Your task to perform on an android device: check android version Image 0: 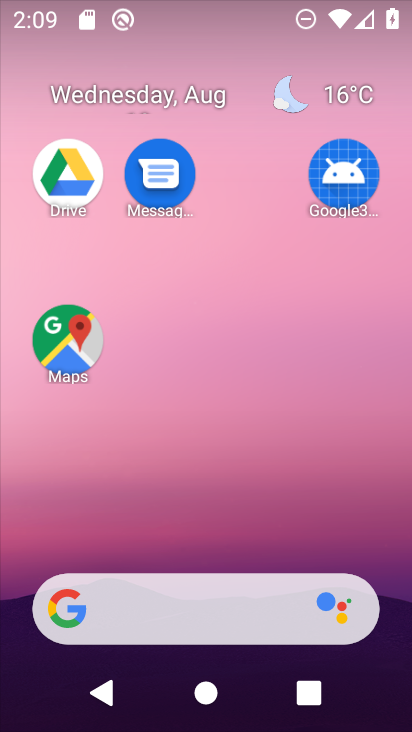
Step 0: drag from (231, 320) to (226, 31)
Your task to perform on an android device: check android version Image 1: 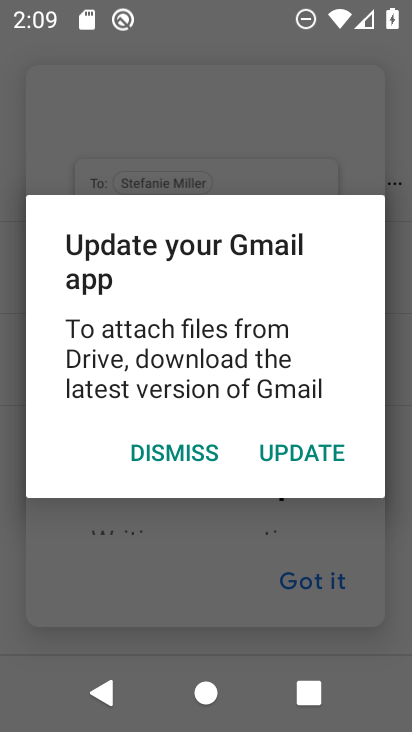
Step 1: click (363, 200)
Your task to perform on an android device: check android version Image 2: 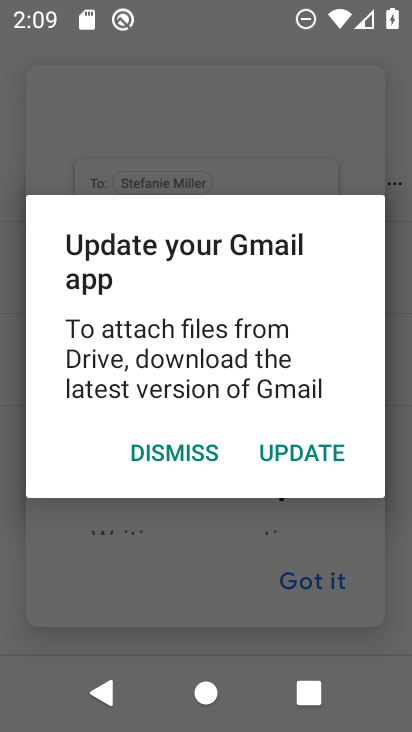
Step 2: press back button
Your task to perform on an android device: check android version Image 3: 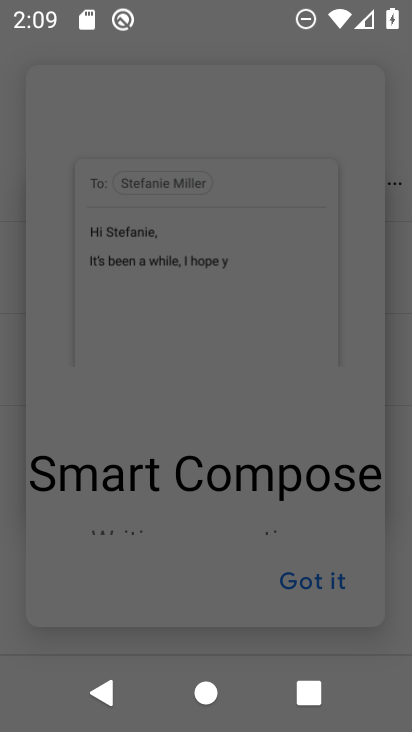
Step 3: press back button
Your task to perform on an android device: check android version Image 4: 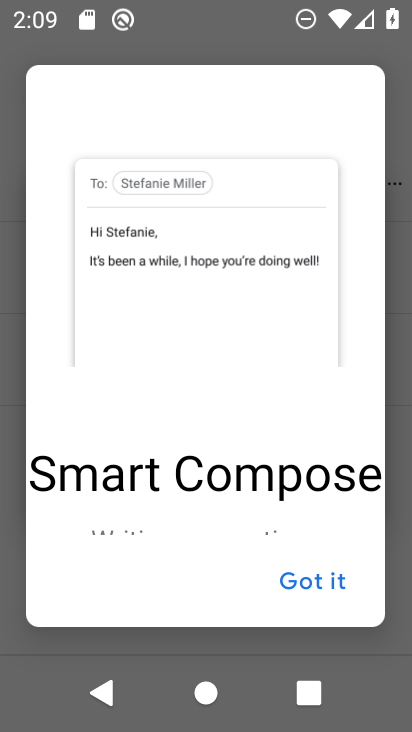
Step 4: press back button
Your task to perform on an android device: check android version Image 5: 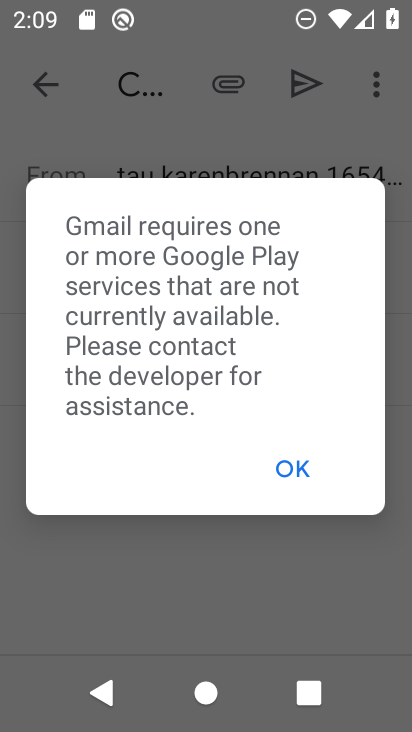
Step 5: press back button
Your task to perform on an android device: check android version Image 6: 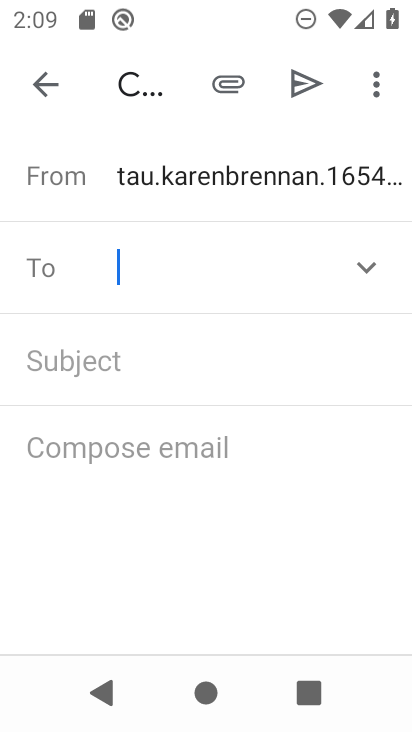
Step 6: press back button
Your task to perform on an android device: check android version Image 7: 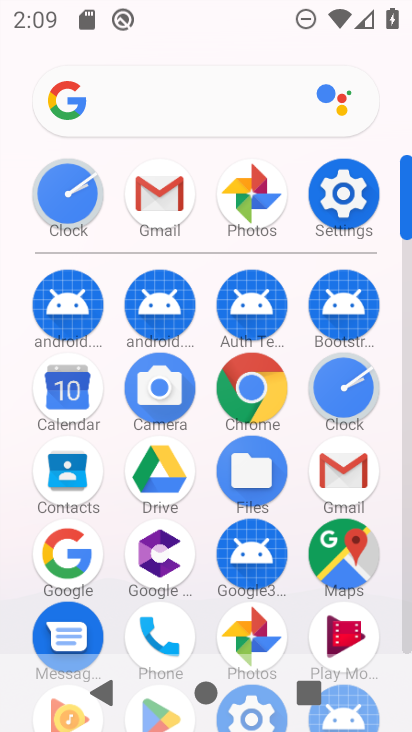
Step 7: click (330, 191)
Your task to perform on an android device: check android version Image 8: 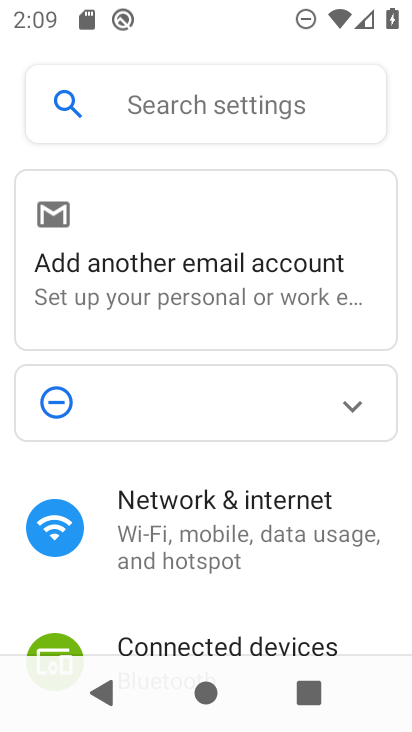
Step 8: drag from (154, 583) to (188, 186)
Your task to perform on an android device: check android version Image 9: 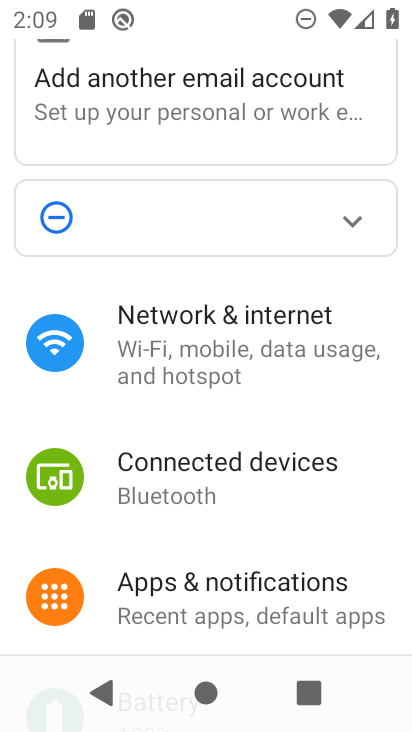
Step 9: drag from (141, 553) to (237, 52)
Your task to perform on an android device: check android version Image 10: 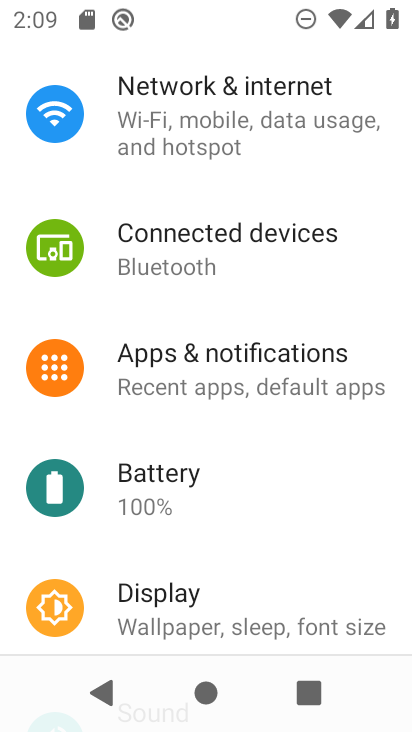
Step 10: drag from (158, 555) to (195, 91)
Your task to perform on an android device: check android version Image 11: 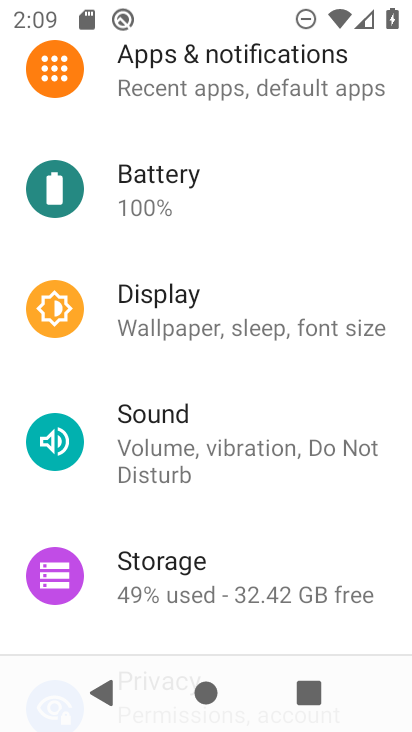
Step 11: drag from (122, 605) to (176, 194)
Your task to perform on an android device: check android version Image 12: 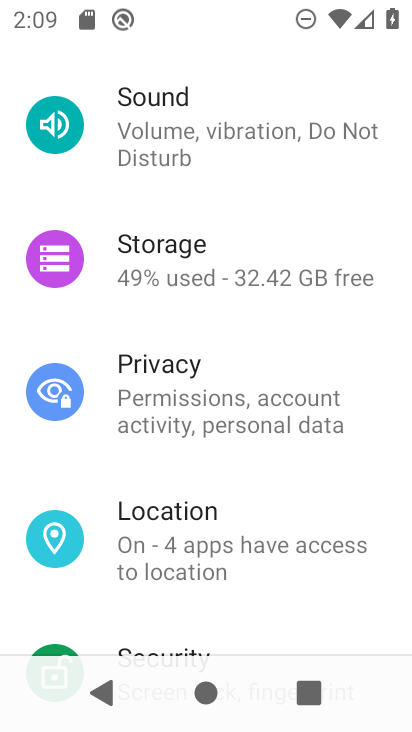
Step 12: drag from (200, 612) to (271, 117)
Your task to perform on an android device: check android version Image 13: 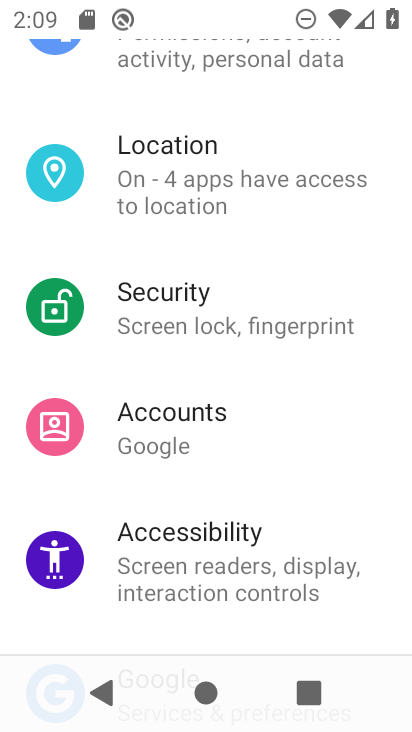
Step 13: drag from (160, 510) to (193, 106)
Your task to perform on an android device: check android version Image 14: 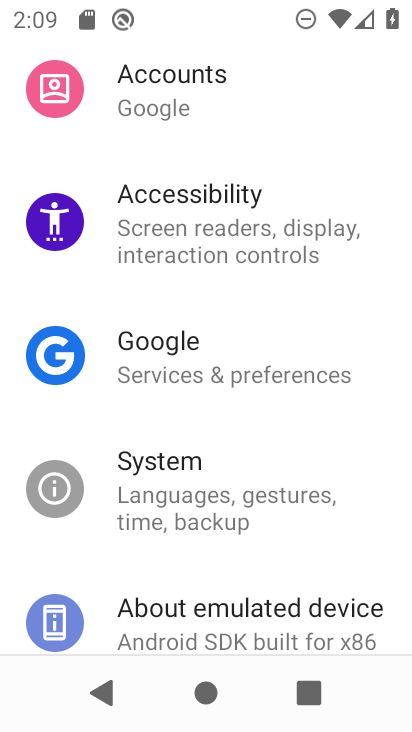
Step 14: drag from (120, 570) to (212, 86)
Your task to perform on an android device: check android version Image 15: 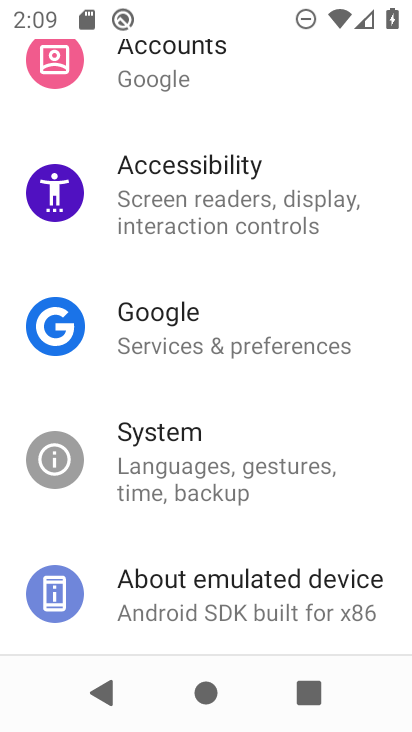
Step 15: click (202, 473)
Your task to perform on an android device: check android version Image 16: 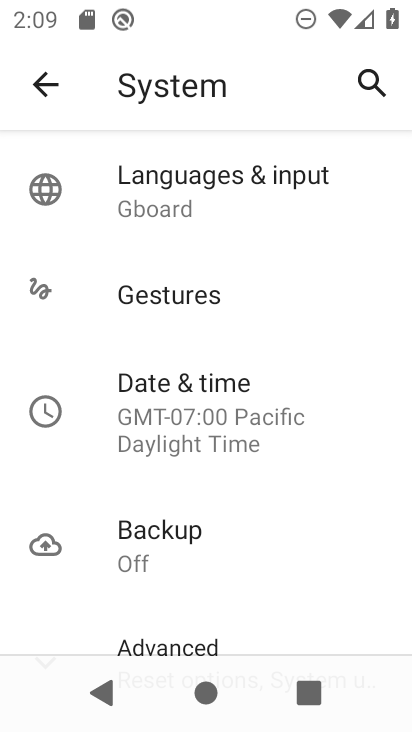
Step 16: click (60, 90)
Your task to perform on an android device: check android version Image 17: 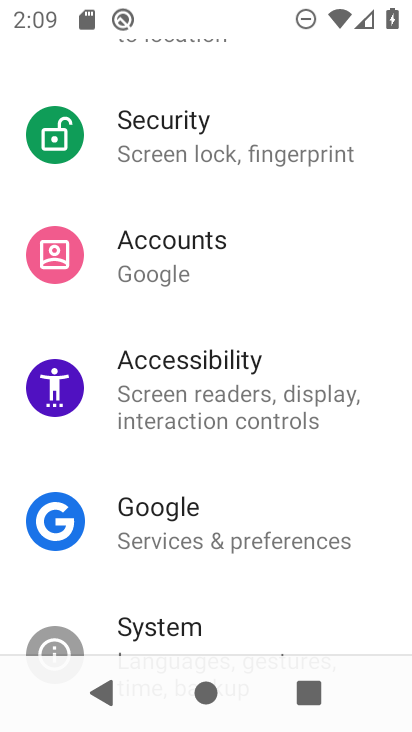
Step 17: drag from (188, 620) to (211, 208)
Your task to perform on an android device: check android version Image 18: 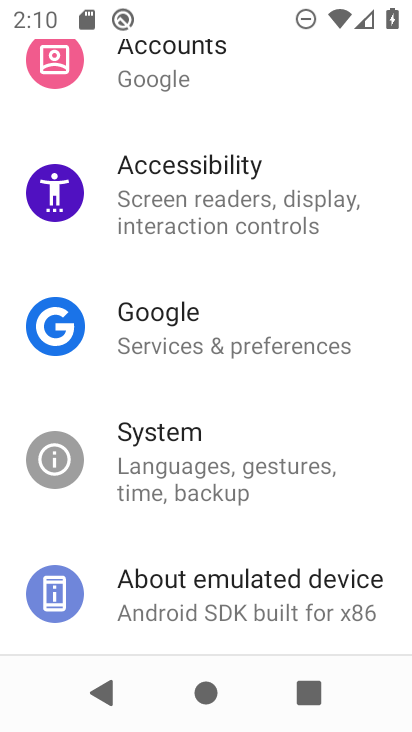
Step 18: click (234, 608)
Your task to perform on an android device: check android version Image 19: 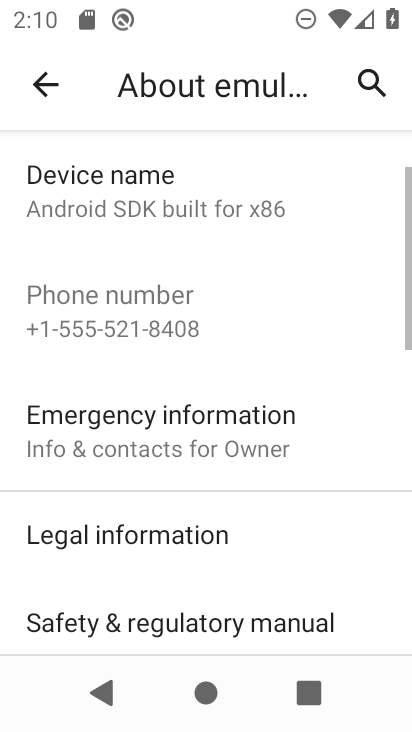
Step 19: drag from (121, 502) to (151, 116)
Your task to perform on an android device: check android version Image 20: 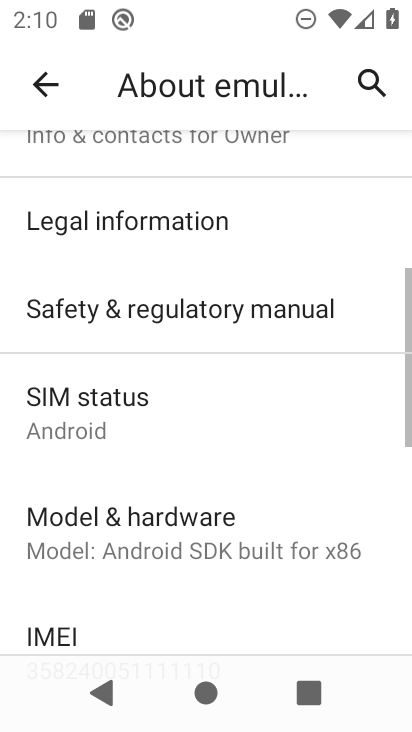
Step 20: drag from (149, 605) to (198, 216)
Your task to perform on an android device: check android version Image 21: 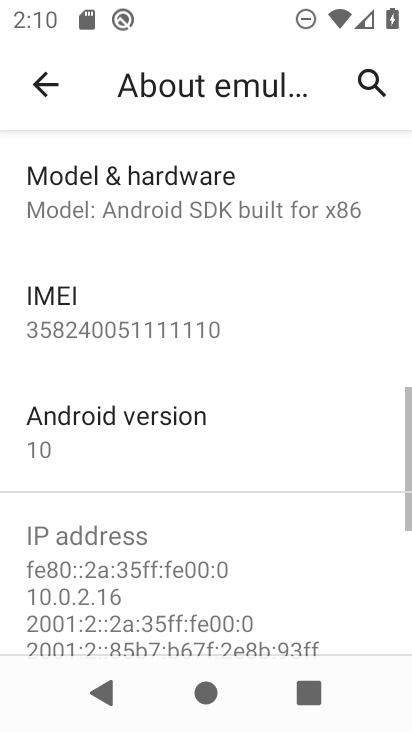
Step 21: click (165, 432)
Your task to perform on an android device: check android version Image 22: 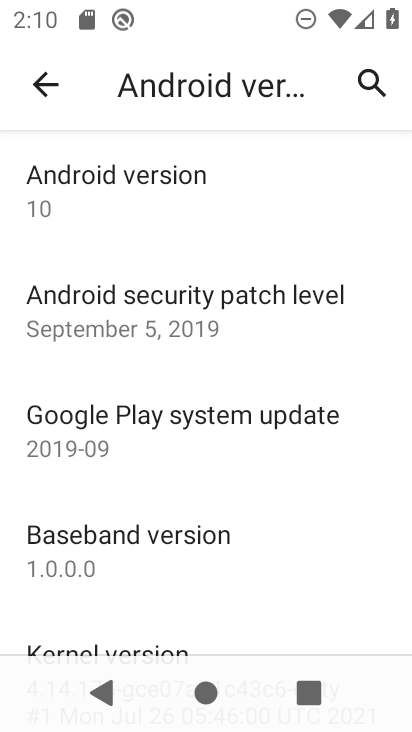
Step 22: task complete